Your task to perform on an android device: Open calendar and show me the fourth week of next month Image 0: 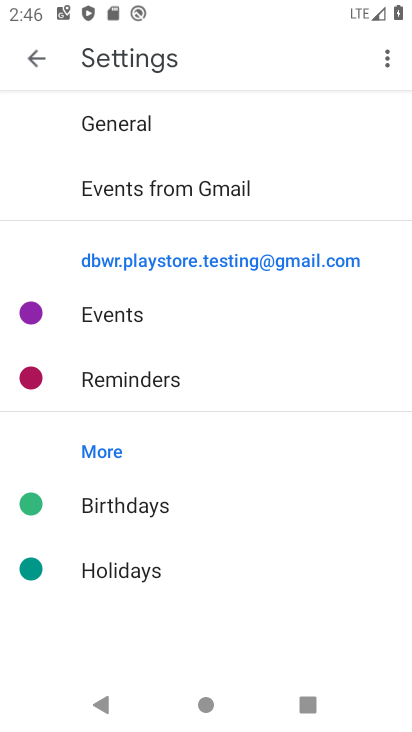
Step 0: press home button
Your task to perform on an android device: Open calendar and show me the fourth week of next month Image 1: 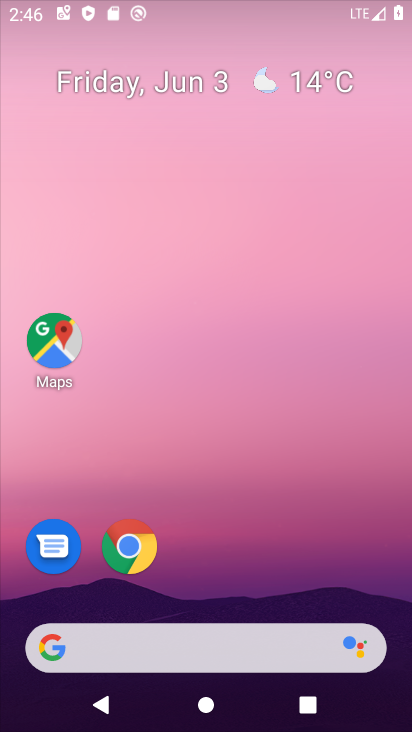
Step 1: drag from (315, 486) to (324, 22)
Your task to perform on an android device: Open calendar and show me the fourth week of next month Image 2: 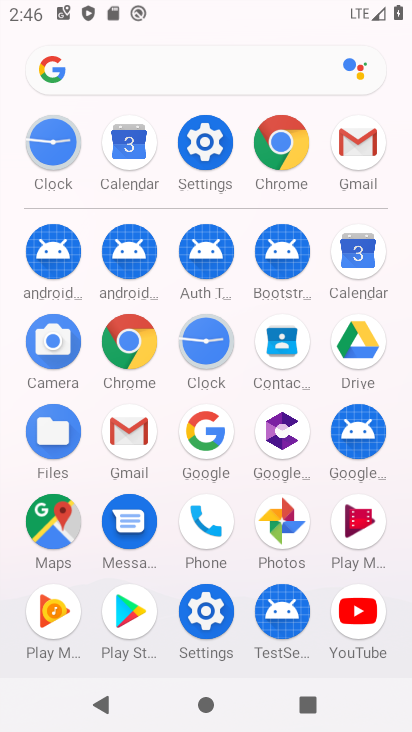
Step 2: click (396, 265)
Your task to perform on an android device: Open calendar and show me the fourth week of next month Image 3: 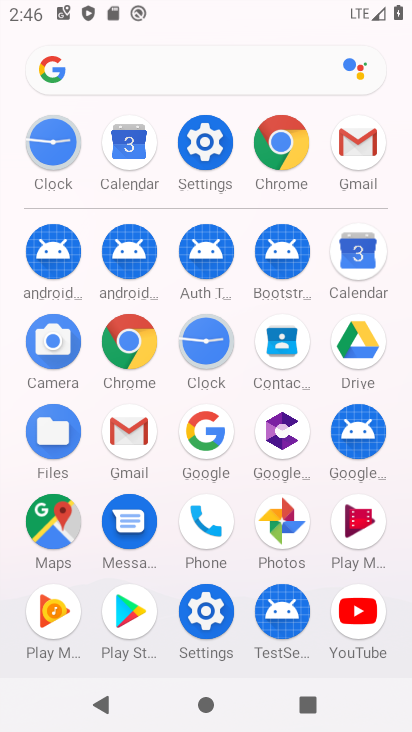
Step 3: click (378, 270)
Your task to perform on an android device: Open calendar and show me the fourth week of next month Image 4: 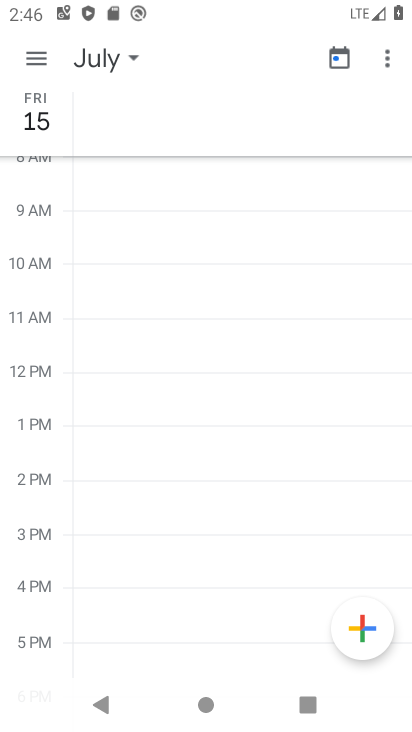
Step 4: click (89, 73)
Your task to perform on an android device: Open calendar and show me the fourth week of next month Image 5: 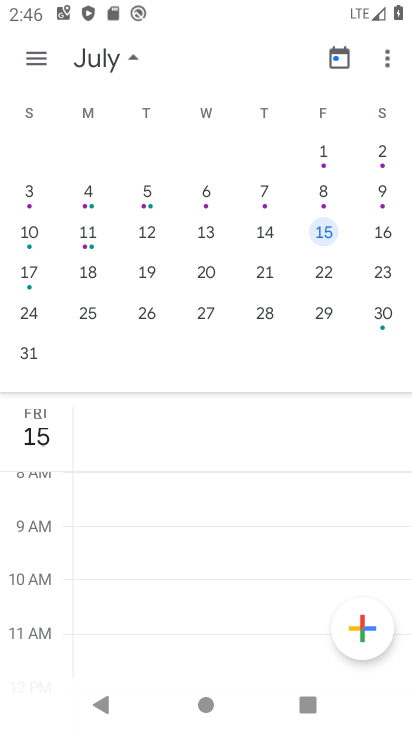
Step 5: drag from (347, 296) to (68, 264)
Your task to perform on an android device: Open calendar and show me the fourth week of next month Image 6: 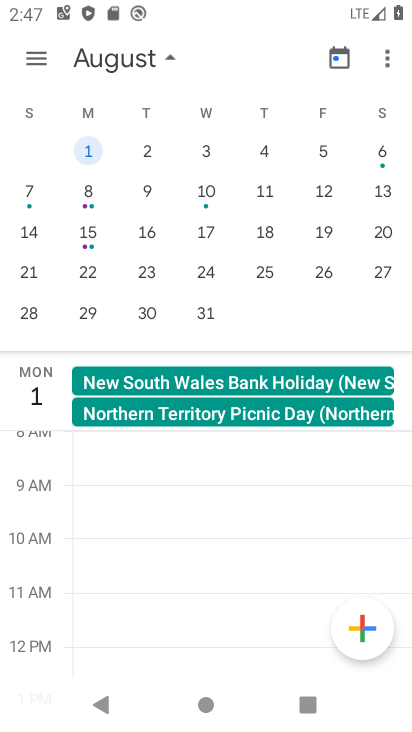
Step 6: click (27, 307)
Your task to perform on an android device: Open calendar and show me the fourth week of next month Image 7: 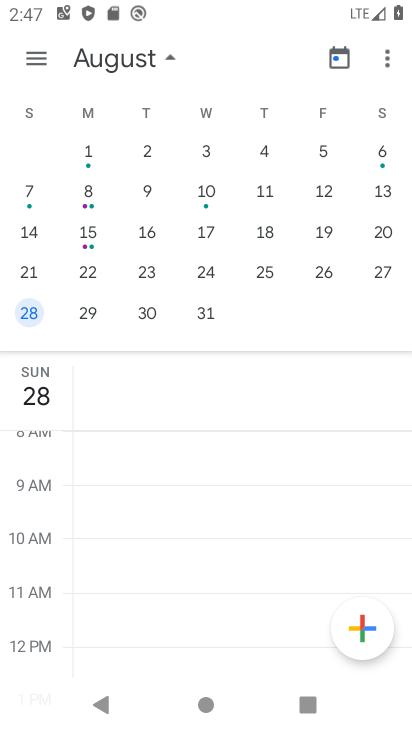
Step 7: task complete